Your task to perform on an android device: Is it going to rain tomorrow? Image 0: 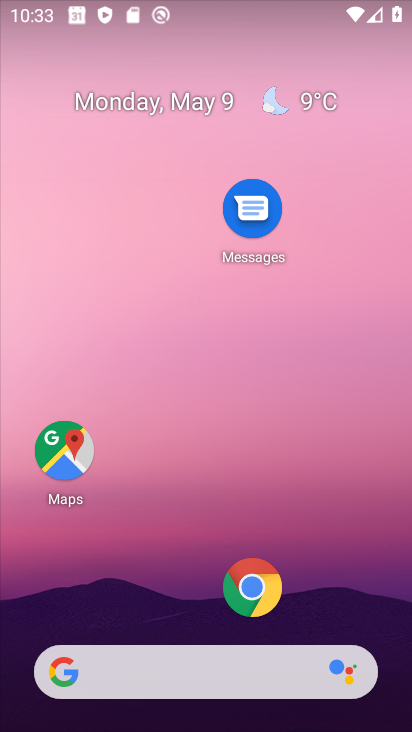
Step 0: drag from (202, 632) to (205, 262)
Your task to perform on an android device: Is it going to rain tomorrow? Image 1: 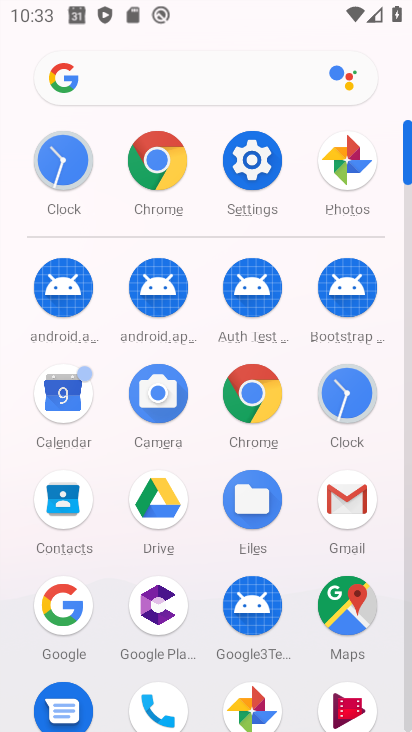
Step 1: click (190, 77)
Your task to perform on an android device: Is it going to rain tomorrow? Image 2: 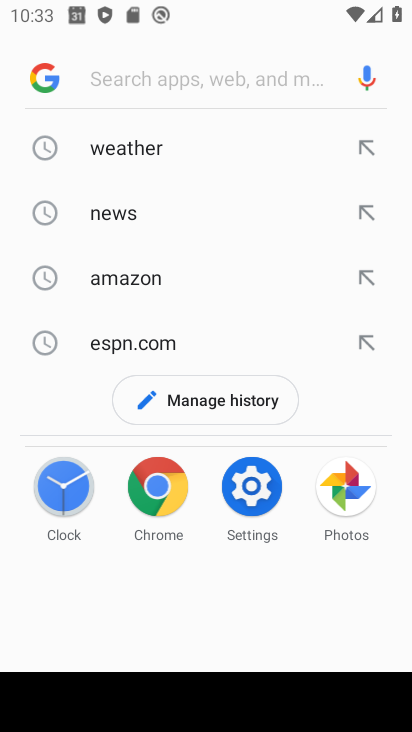
Step 2: type "rain tomorrow"
Your task to perform on an android device: Is it going to rain tomorrow? Image 3: 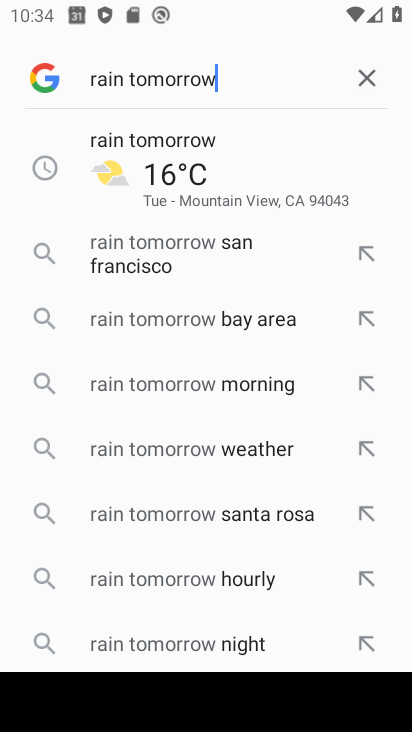
Step 3: click (188, 150)
Your task to perform on an android device: Is it going to rain tomorrow? Image 4: 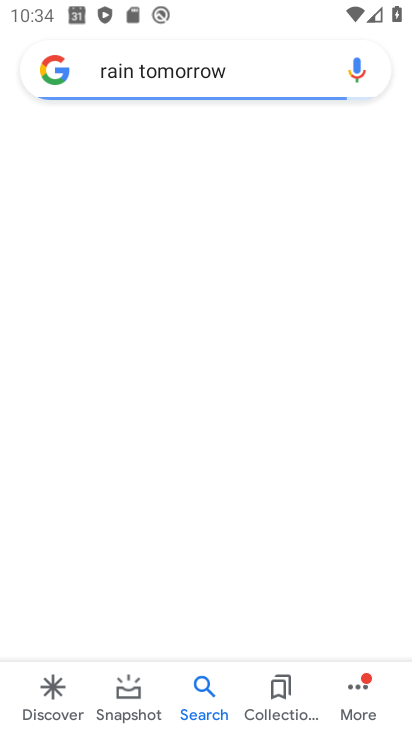
Step 4: click (181, 182)
Your task to perform on an android device: Is it going to rain tomorrow? Image 5: 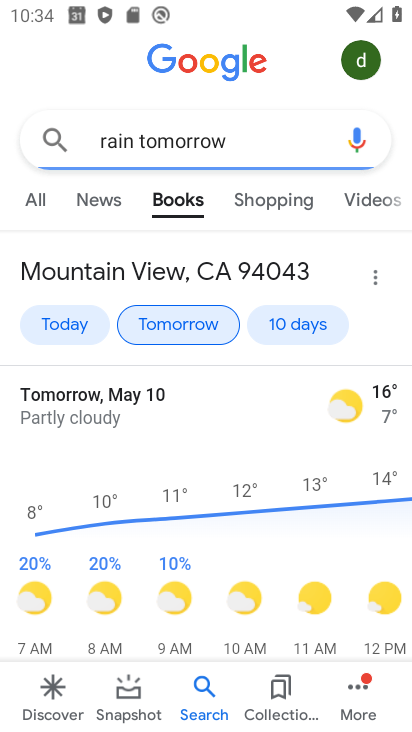
Step 5: click (33, 196)
Your task to perform on an android device: Is it going to rain tomorrow? Image 6: 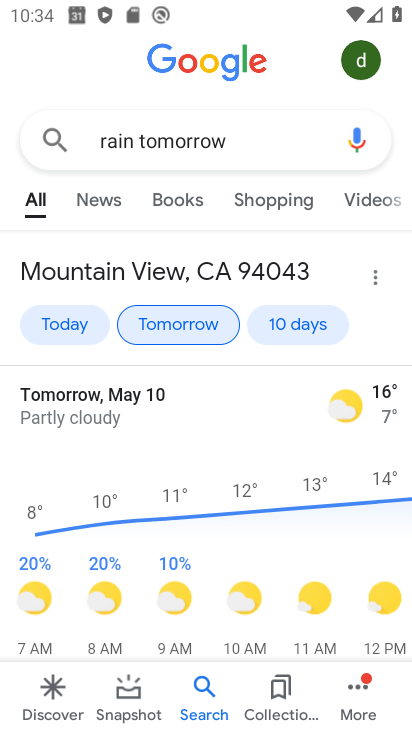
Step 6: task complete